Your task to perform on an android device: Search for pizza restaurants on Maps Image 0: 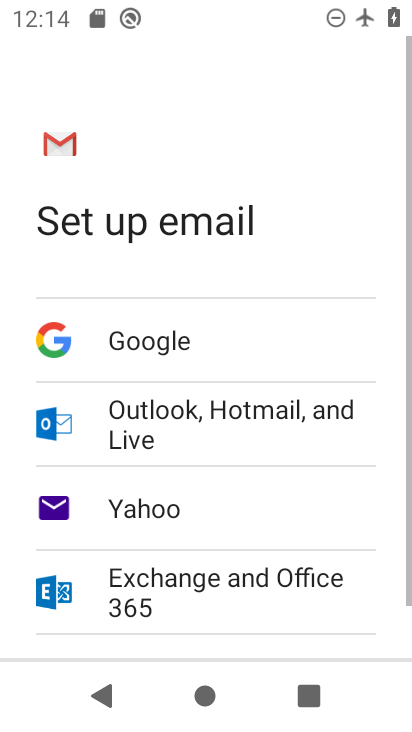
Step 0: press home button
Your task to perform on an android device: Search for pizza restaurants on Maps Image 1: 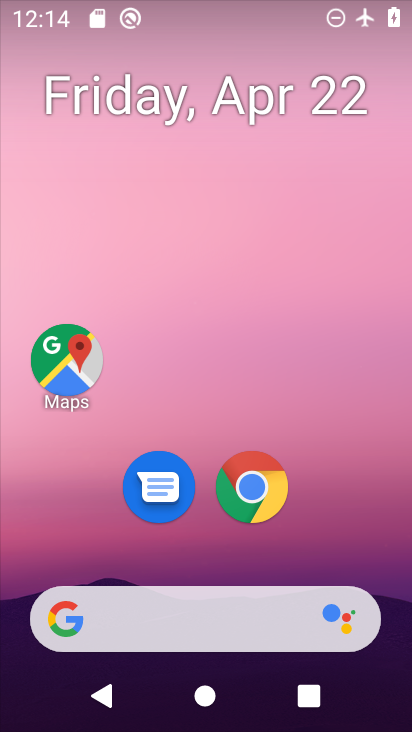
Step 1: drag from (282, 540) to (288, 162)
Your task to perform on an android device: Search for pizza restaurants on Maps Image 2: 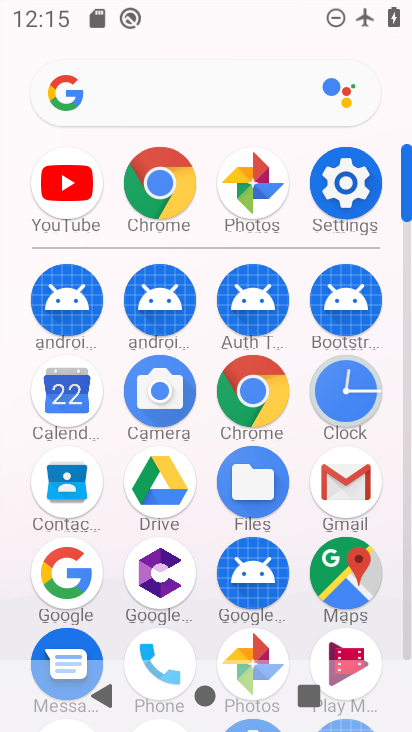
Step 2: click (355, 554)
Your task to perform on an android device: Search for pizza restaurants on Maps Image 3: 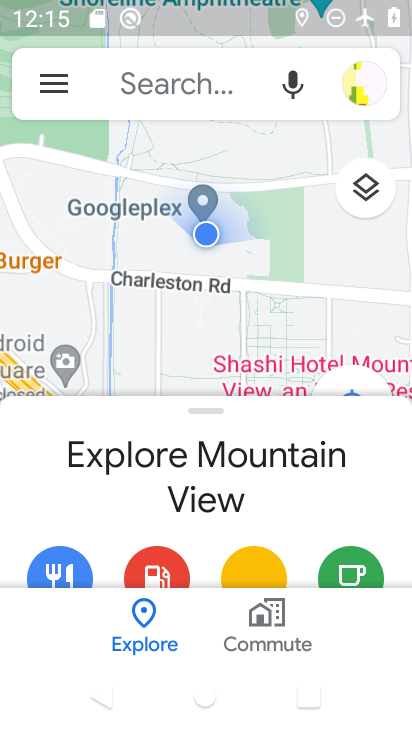
Step 3: click (116, 72)
Your task to perform on an android device: Search for pizza restaurants on Maps Image 4: 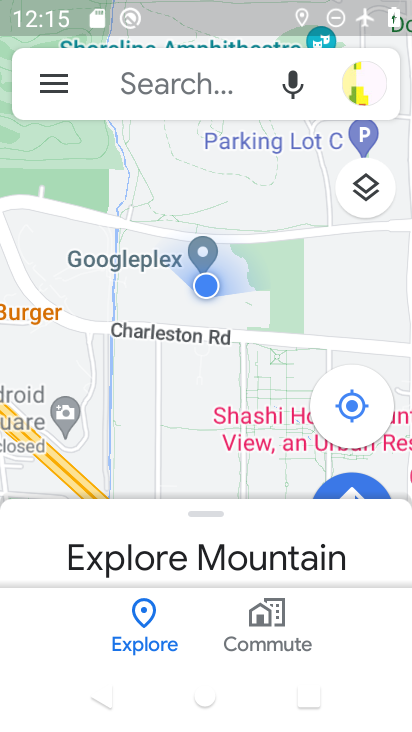
Step 4: type "pizza restaurants"
Your task to perform on an android device: Search for pizza restaurants on Maps Image 5: 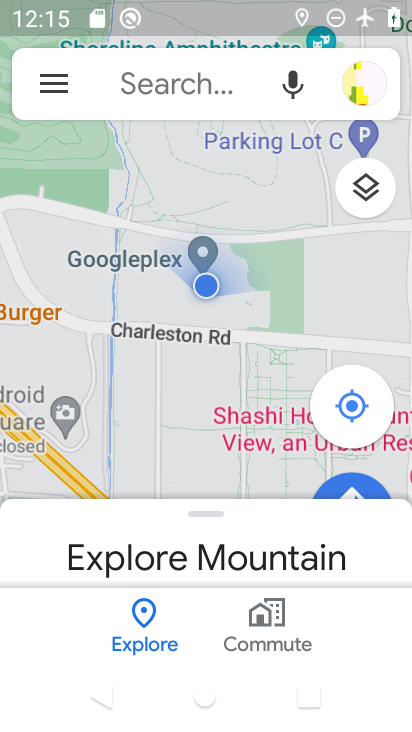
Step 5: click (170, 90)
Your task to perform on an android device: Search for pizza restaurants on Maps Image 6: 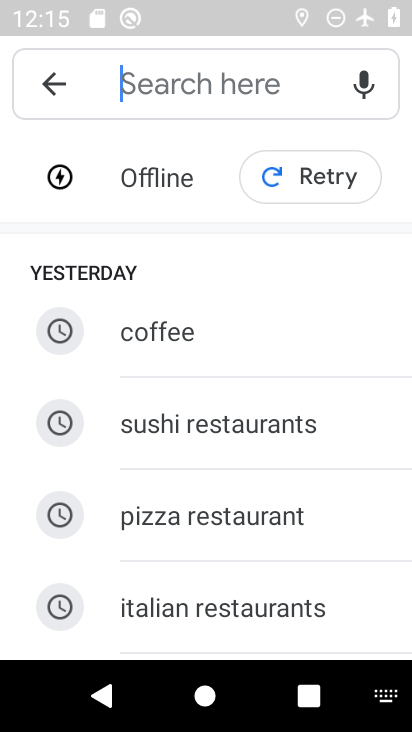
Step 6: click (278, 511)
Your task to perform on an android device: Search for pizza restaurants on Maps Image 7: 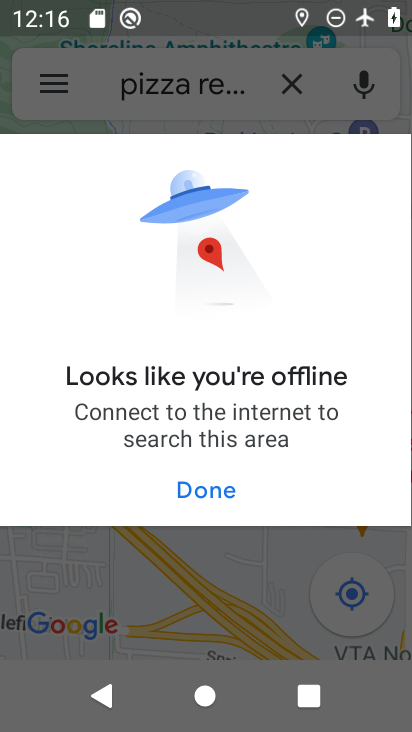
Step 7: task complete